Your task to perform on an android device: Turn off the flashlight Image 0: 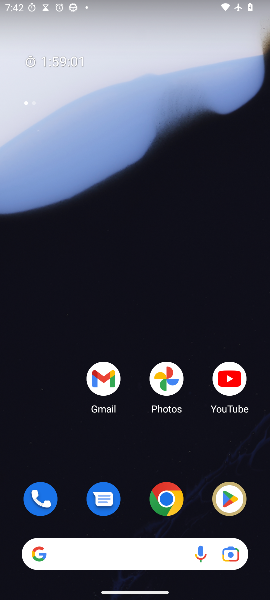
Step 0: drag from (216, 350) to (205, 38)
Your task to perform on an android device: Turn off the flashlight Image 1: 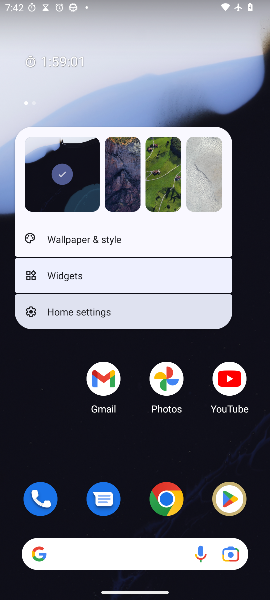
Step 1: click (52, 387)
Your task to perform on an android device: Turn off the flashlight Image 2: 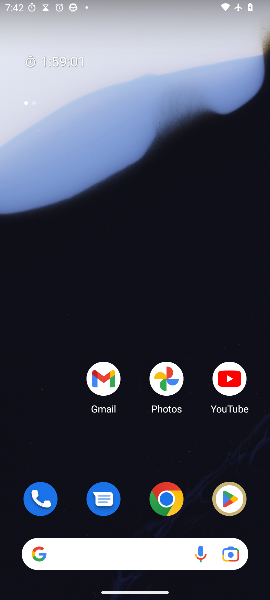
Step 2: drag from (124, 419) to (111, 0)
Your task to perform on an android device: Turn off the flashlight Image 3: 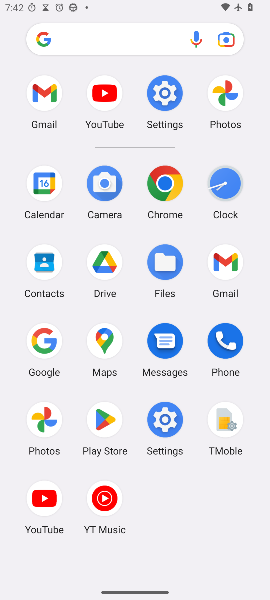
Step 3: click (165, 98)
Your task to perform on an android device: Turn off the flashlight Image 4: 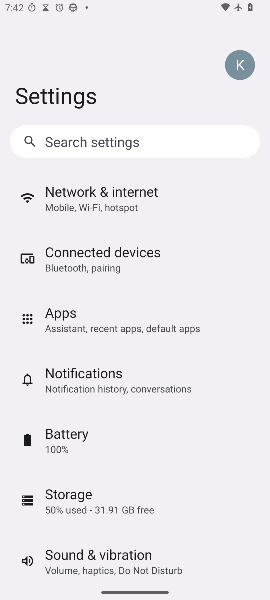
Step 4: task complete